Your task to perform on an android device: Show me popular videos on Youtube Image 0: 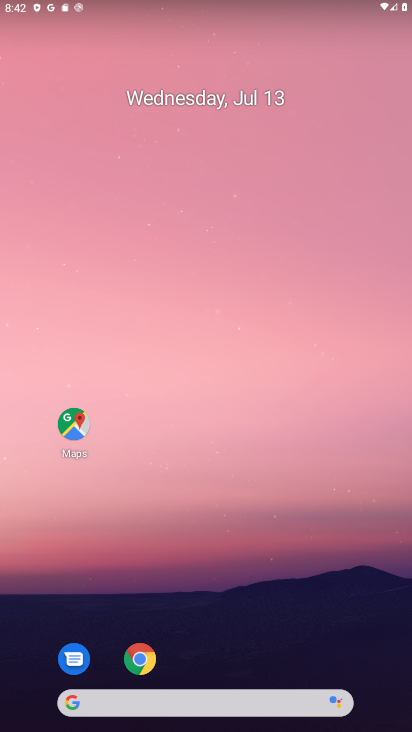
Step 0: drag from (301, 659) to (205, 13)
Your task to perform on an android device: Show me popular videos on Youtube Image 1: 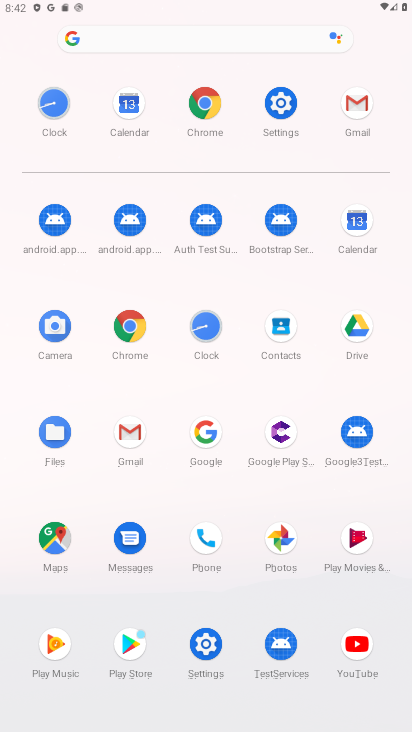
Step 1: click (351, 666)
Your task to perform on an android device: Show me popular videos on Youtube Image 2: 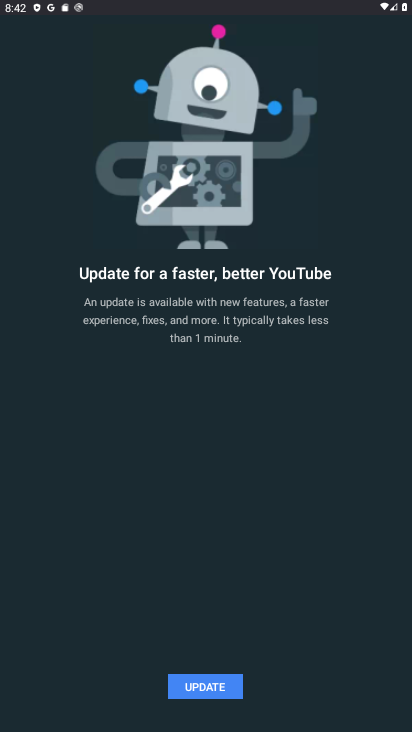
Step 2: click (179, 673)
Your task to perform on an android device: Show me popular videos on Youtube Image 3: 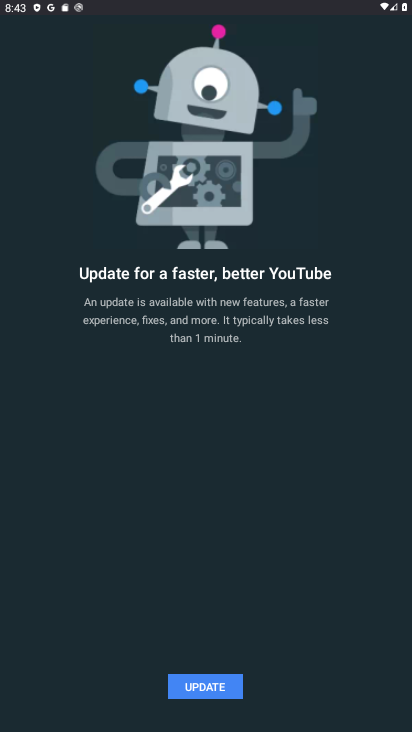
Step 3: click (165, 691)
Your task to perform on an android device: Show me popular videos on Youtube Image 4: 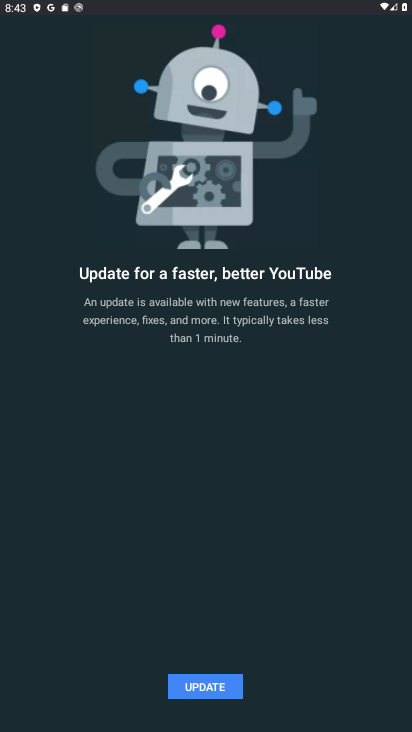
Step 4: click (177, 691)
Your task to perform on an android device: Show me popular videos on Youtube Image 5: 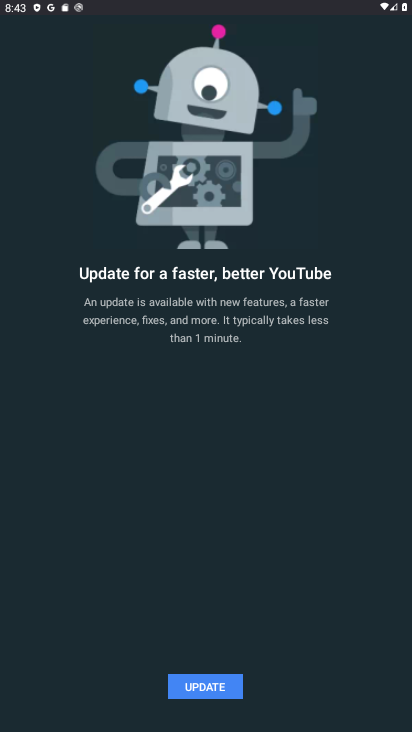
Step 5: click (177, 691)
Your task to perform on an android device: Show me popular videos on Youtube Image 6: 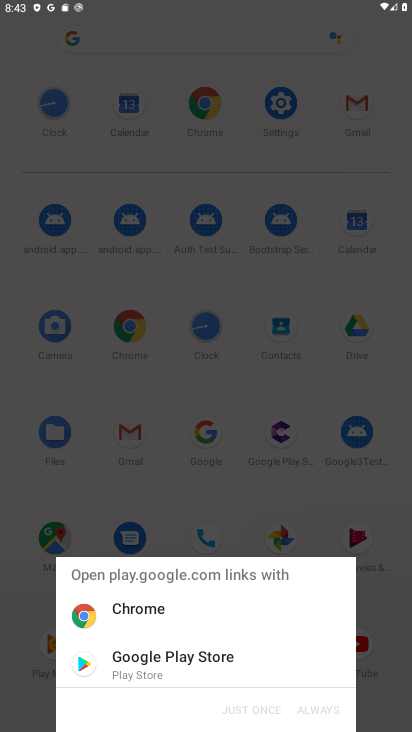
Step 6: click (208, 647)
Your task to perform on an android device: Show me popular videos on Youtube Image 7: 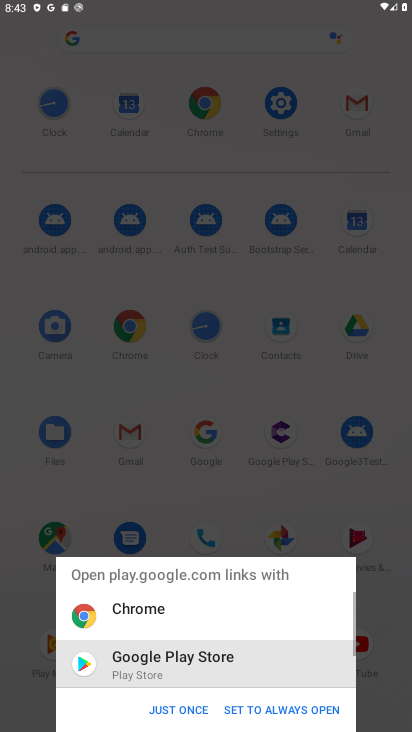
Step 7: click (235, 708)
Your task to perform on an android device: Show me popular videos on Youtube Image 8: 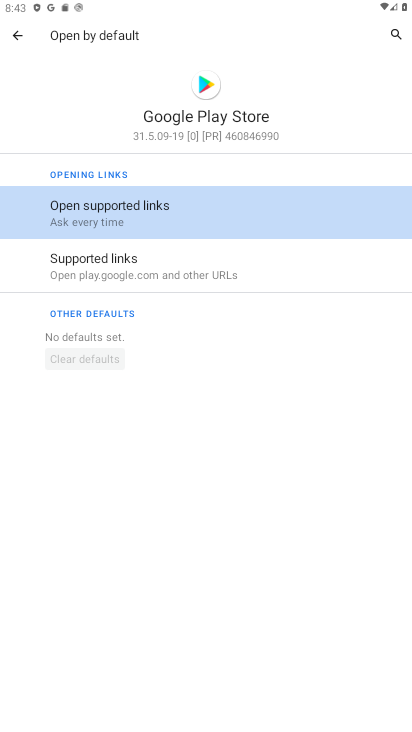
Step 8: click (14, 42)
Your task to perform on an android device: Show me popular videos on Youtube Image 9: 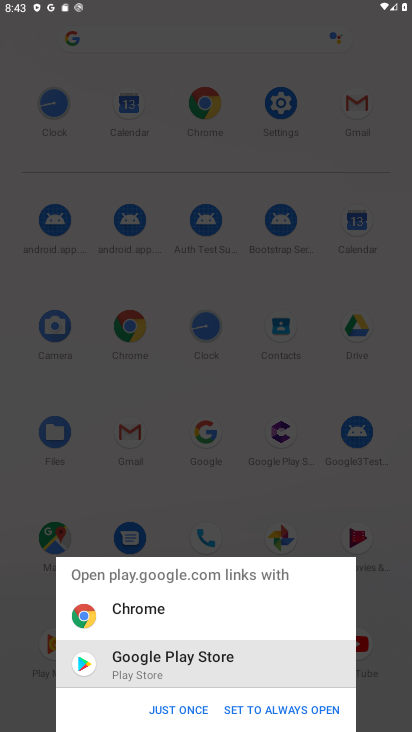
Step 9: click (145, 711)
Your task to perform on an android device: Show me popular videos on Youtube Image 10: 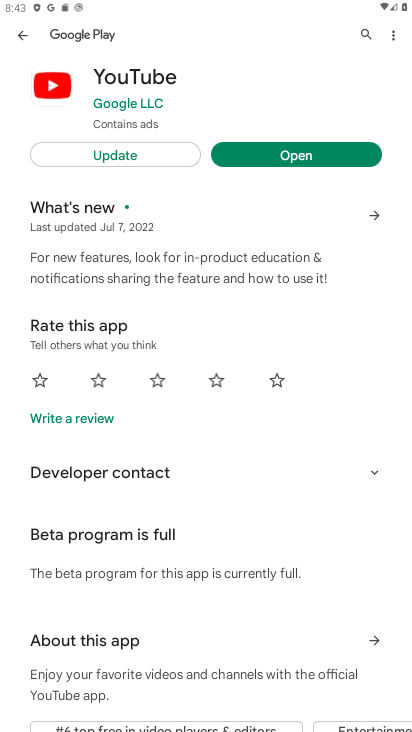
Step 10: click (170, 156)
Your task to perform on an android device: Show me popular videos on Youtube Image 11: 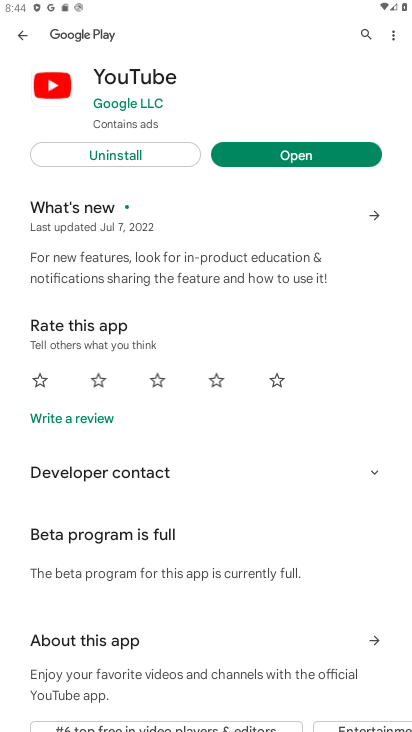
Step 11: click (274, 151)
Your task to perform on an android device: Show me popular videos on Youtube Image 12: 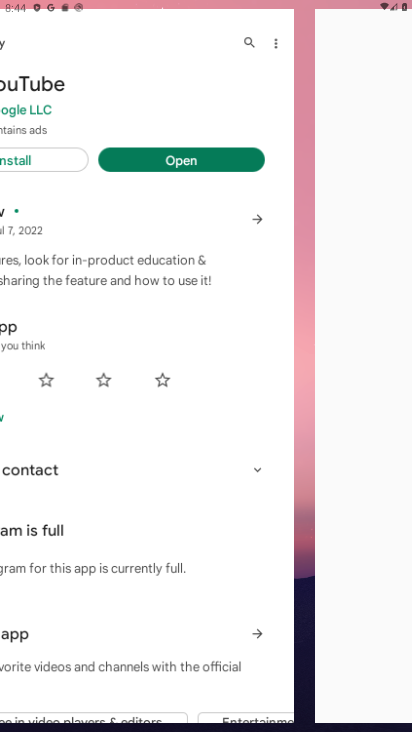
Step 12: click (274, 151)
Your task to perform on an android device: Show me popular videos on Youtube Image 13: 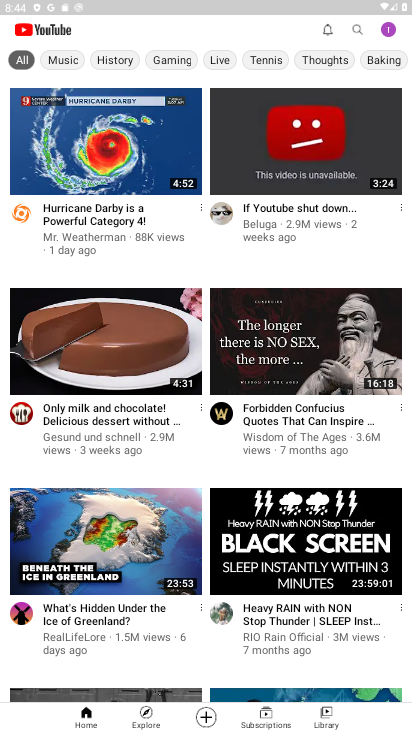
Step 13: task complete